Your task to perform on an android device: Search for sushi restaurants on Maps Image 0: 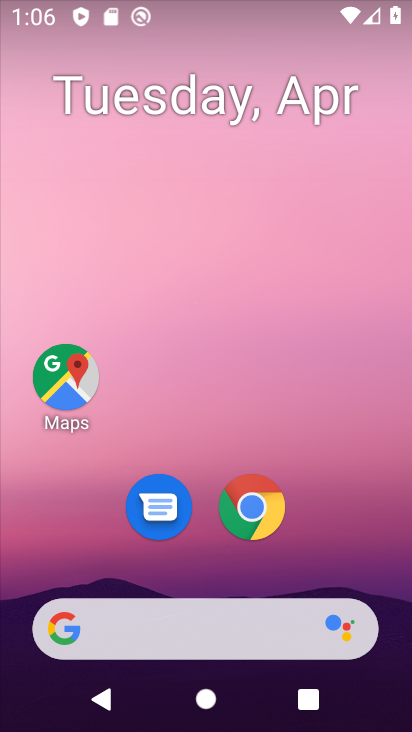
Step 0: click (53, 400)
Your task to perform on an android device: Search for sushi restaurants on Maps Image 1: 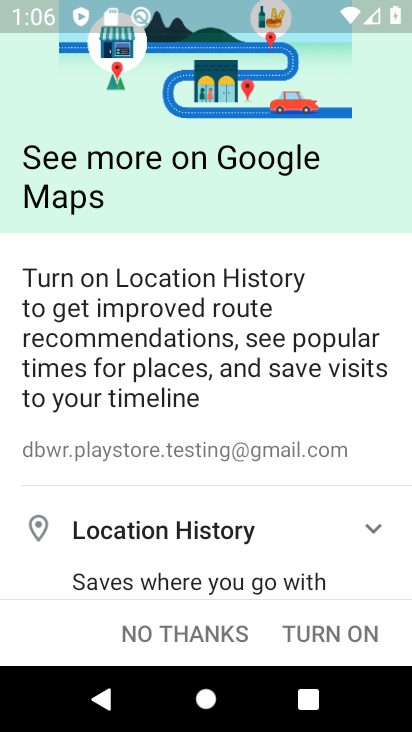
Step 1: click (337, 620)
Your task to perform on an android device: Search for sushi restaurants on Maps Image 2: 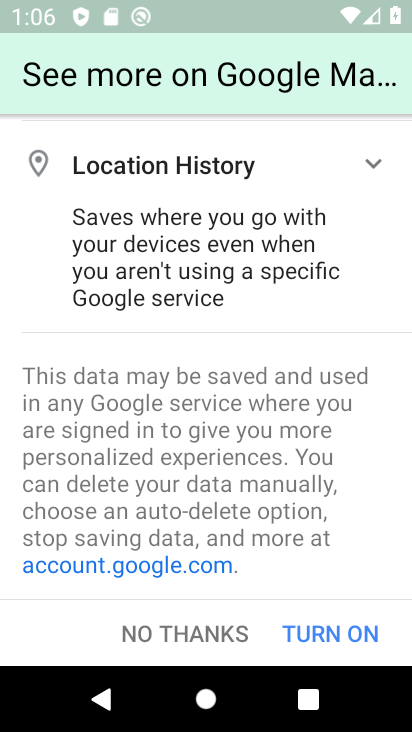
Step 2: click (337, 620)
Your task to perform on an android device: Search for sushi restaurants on Maps Image 3: 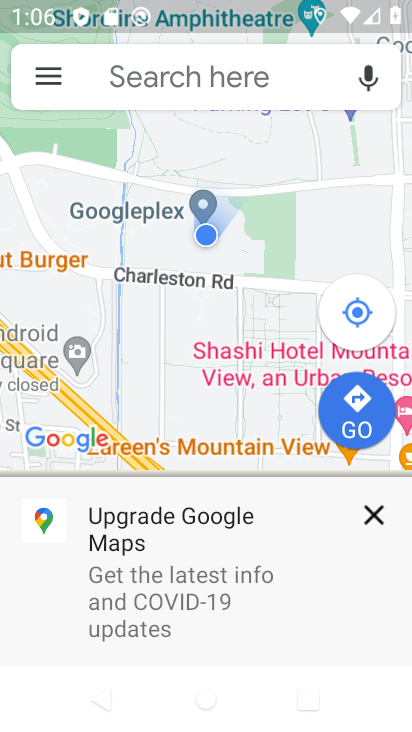
Step 3: click (387, 501)
Your task to perform on an android device: Search for sushi restaurants on Maps Image 4: 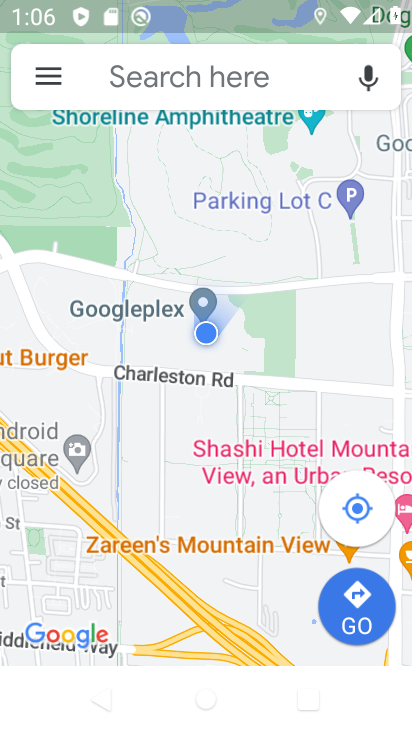
Step 4: click (188, 73)
Your task to perform on an android device: Search for sushi restaurants on Maps Image 5: 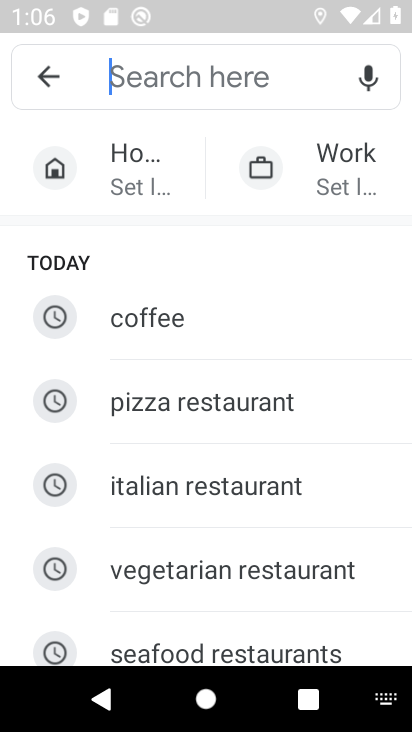
Step 5: type "sushi"
Your task to perform on an android device: Search for sushi restaurants on Maps Image 6: 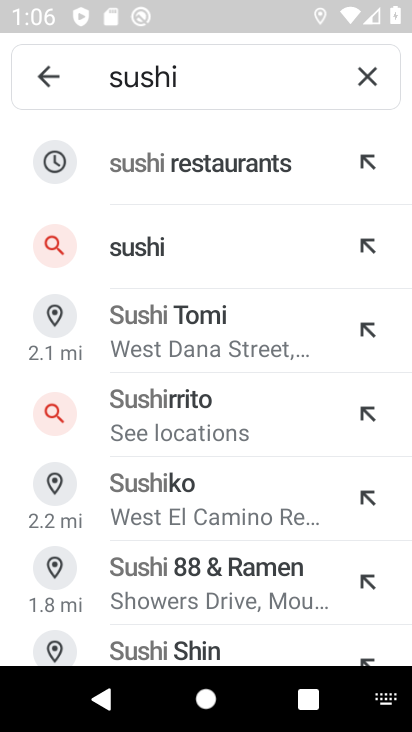
Step 6: click (348, 176)
Your task to perform on an android device: Search for sushi restaurants on Maps Image 7: 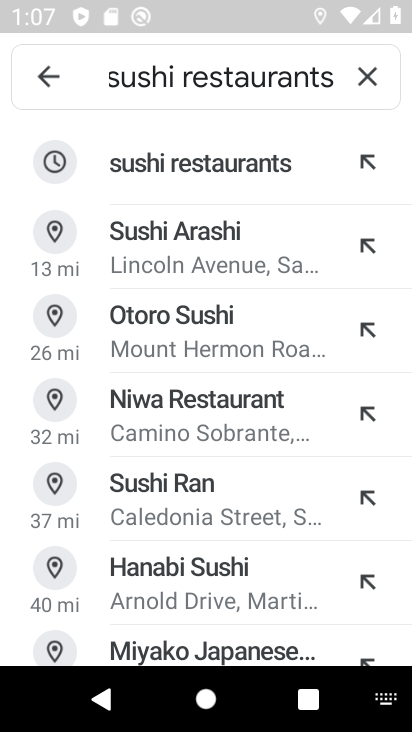
Step 7: click (339, 153)
Your task to perform on an android device: Search for sushi restaurants on Maps Image 8: 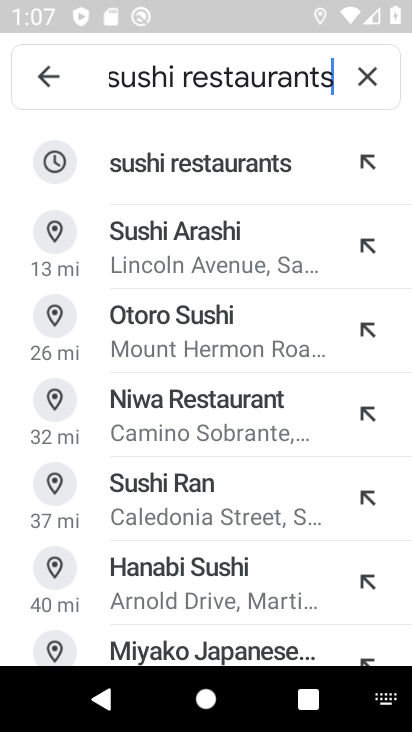
Step 8: task complete